Your task to perform on an android device: Open the web browser Image 0: 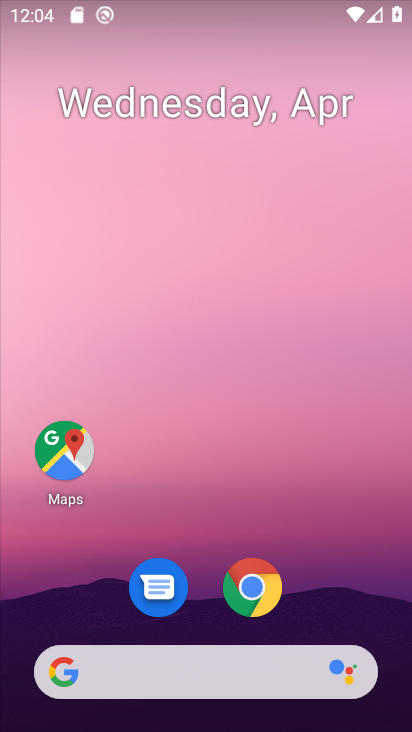
Step 0: click (251, 593)
Your task to perform on an android device: Open the web browser Image 1: 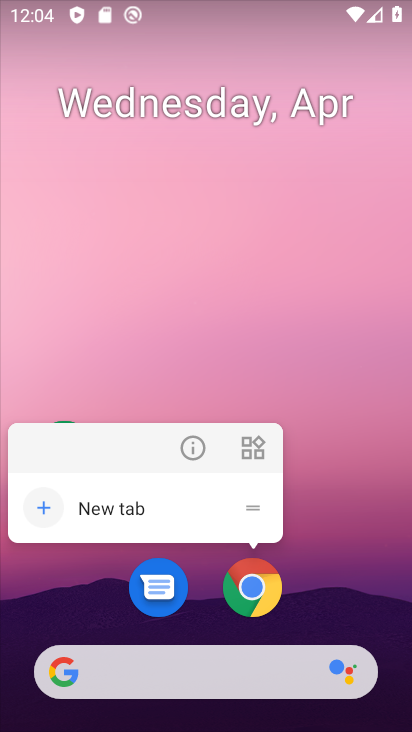
Step 1: click (195, 442)
Your task to perform on an android device: Open the web browser Image 2: 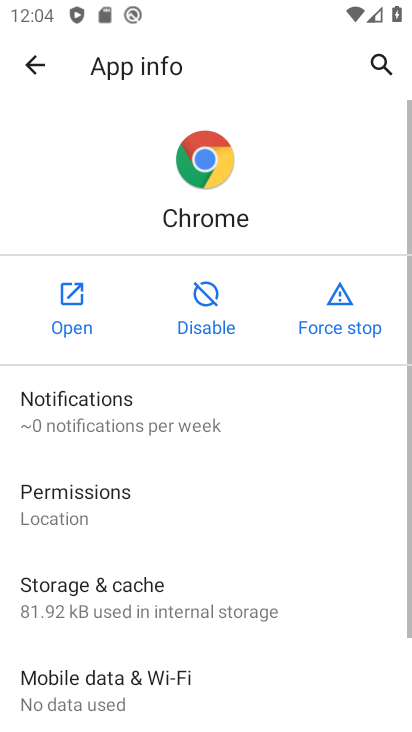
Step 2: click (67, 314)
Your task to perform on an android device: Open the web browser Image 3: 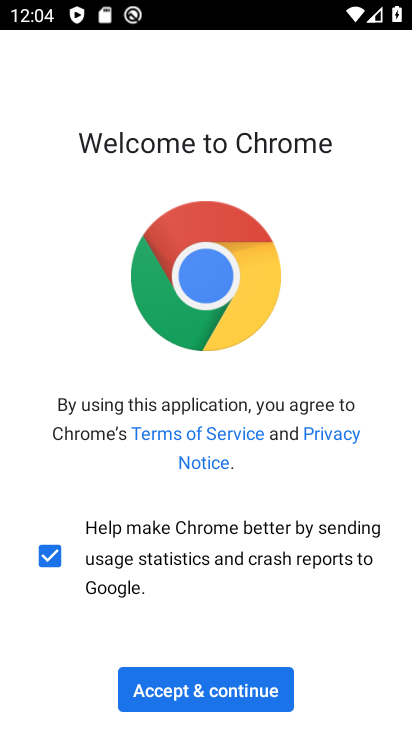
Step 3: click (212, 689)
Your task to perform on an android device: Open the web browser Image 4: 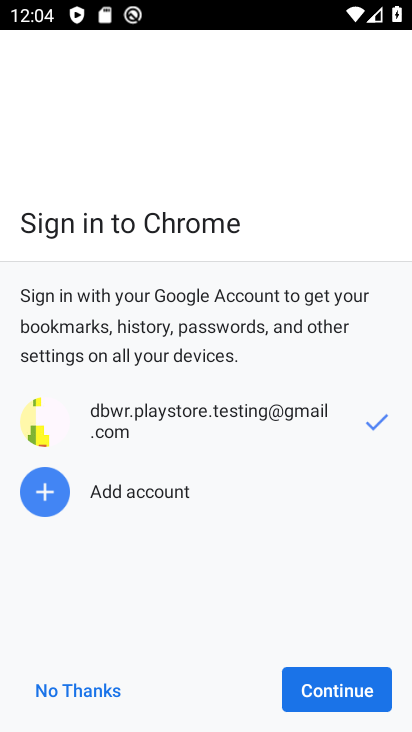
Step 4: click (328, 695)
Your task to perform on an android device: Open the web browser Image 5: 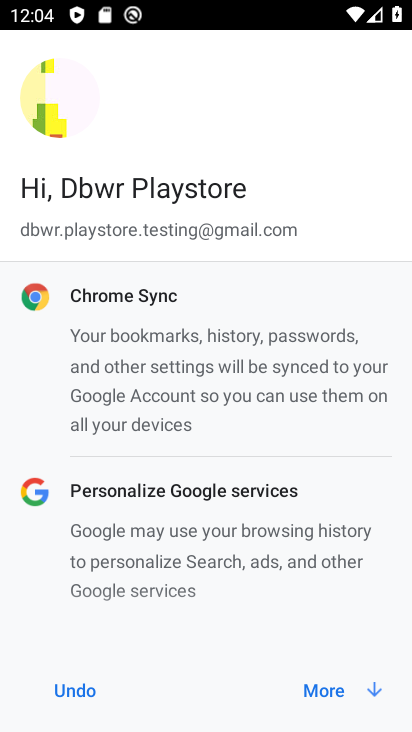
Step 5: click (328, 695)
Your task to perform on an android device: Open the web browser Image 6: 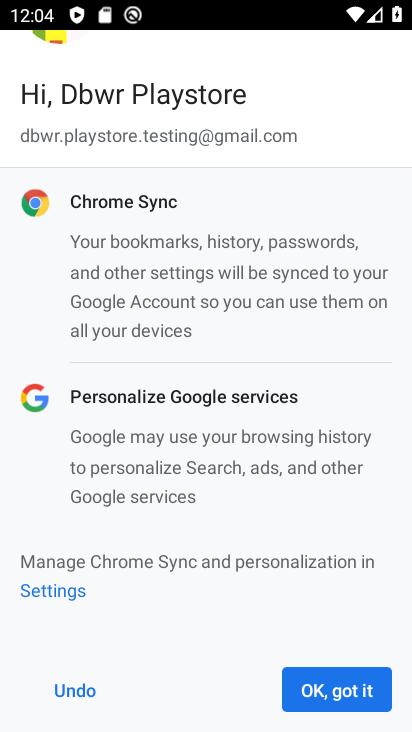
Step 6: click (328, 694)
Your task to perform on an android device: Open the web browser Image 7: 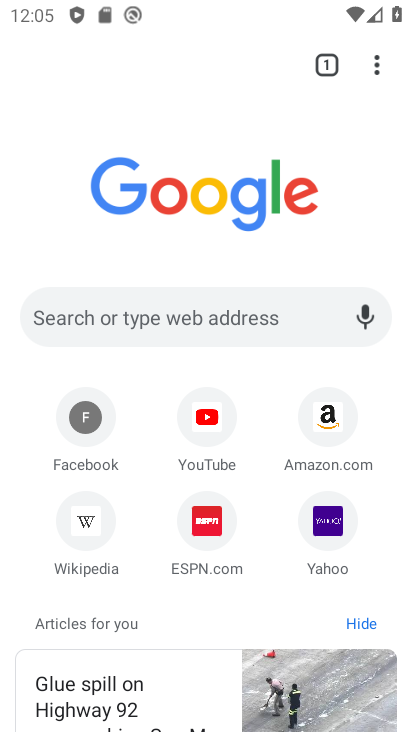
Step 7: click (185, 317)
Your task to perform on an android device: Open the web browser Image 8: 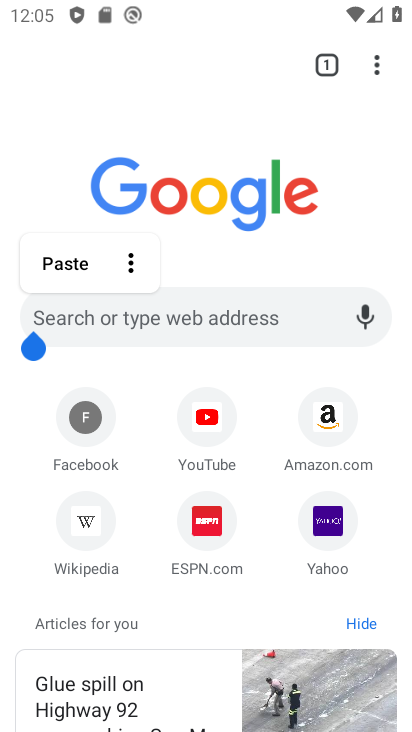
Step 8: click (119, 322)
Your task to perform on an android device: Open the web browser Image 9: 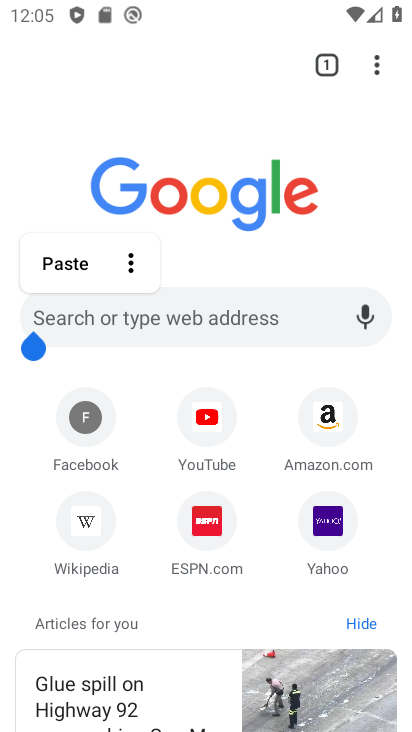
Step 9: task complete